Your task to perform on an android device: Search for sushi restaurants on Maps Image 0: 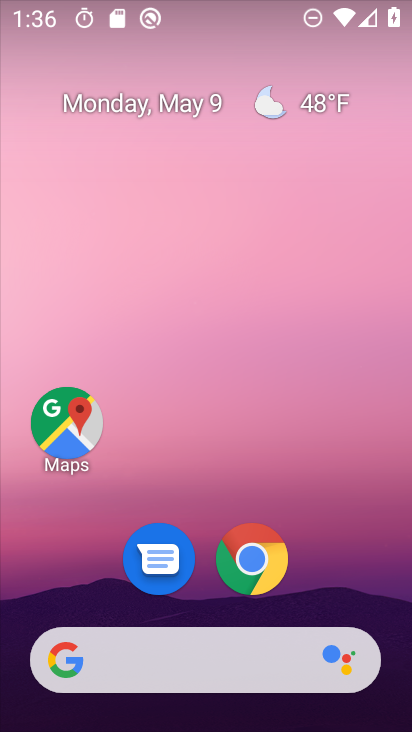
Step 0: drag from (208, 606) to (233, 108)
Your task to perform on an android device: Search for sushi restaurants on Maps Image 1: 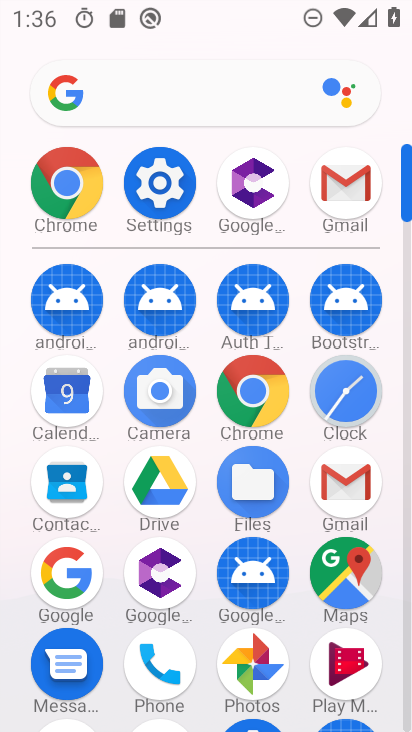
Step 1: click (340, 568)
Your task to perform on an android device: Search for sushi restaurants on Maps Image 2: 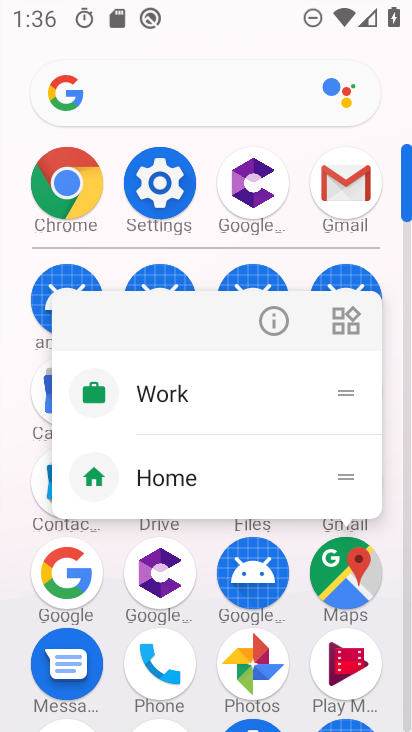
Step 2: click (278, 335)
Your task to perform on an android device: Search for sushi restaurants on Maps Image 3: 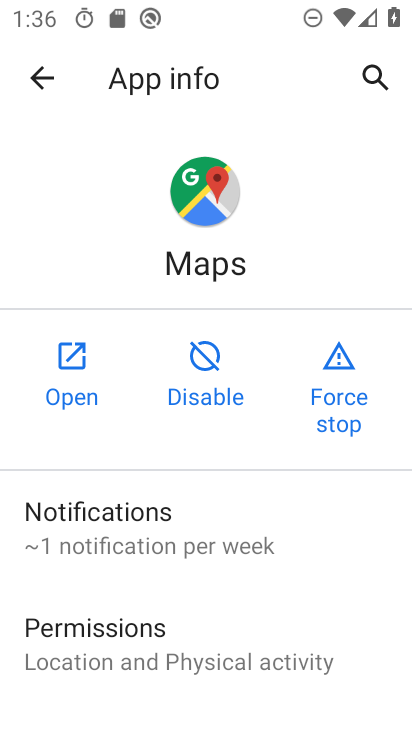
Step 3: click (57, 368)
Your task to perform on an android device: Search for sushi restaurants on Maps Image 4: 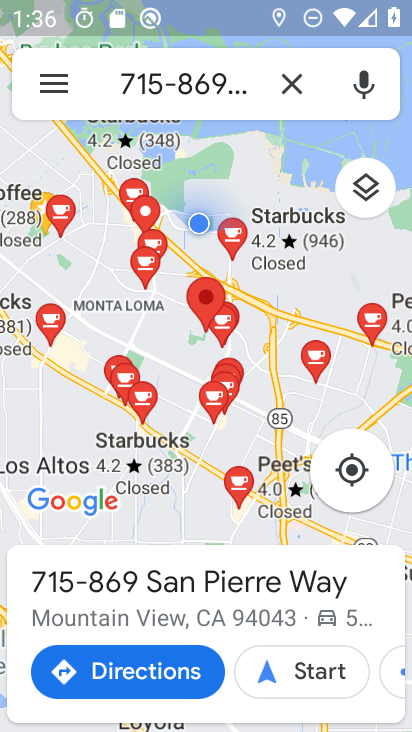
Step 4: drag from (163, 577) to (220, 238)
Your task to perform on an android device: Search for sushi restaurants on Maps Image 5: 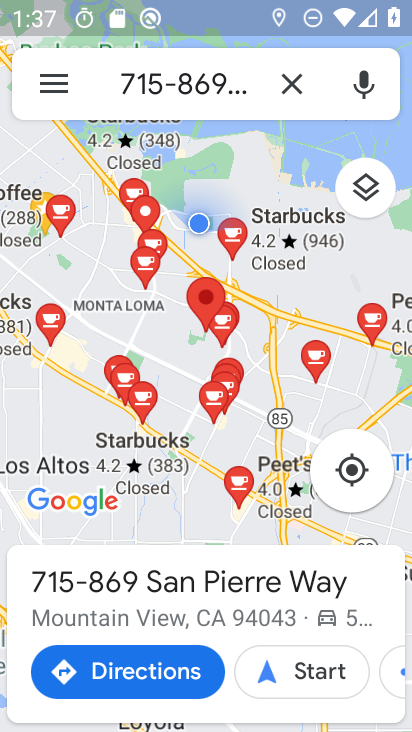
Step 5: drag from (212, 468) to (281, 166)
Your task to perform on an android device: Search for sushi restaurants on Maps Image 6: 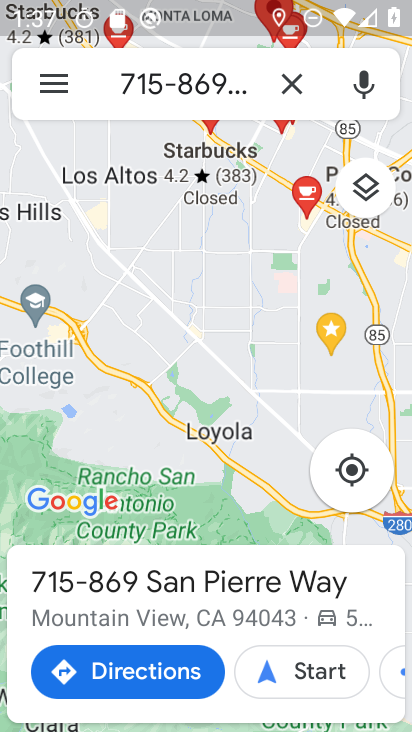
Step 6: drag from (253, 462) to (283, 248)
Your task to perform on an android device: Search for sushi restaurants on Maps Image 7: 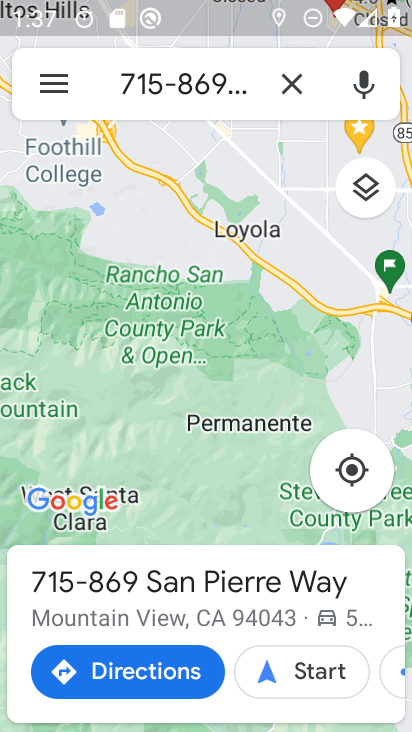
Step 7: click (288, 97)
Your task to perform on an android device: Search for sushi restaurants on Maps Image 8: 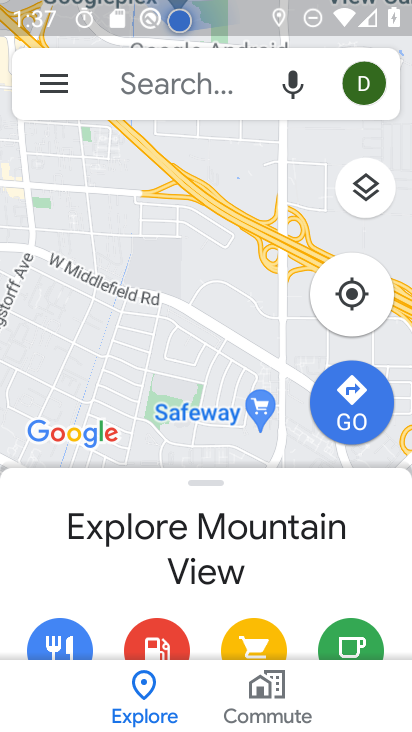
Step 8: click (185, 96)
Your task to perform on an android device: Search for sushi restaurants on Maps Image 9: 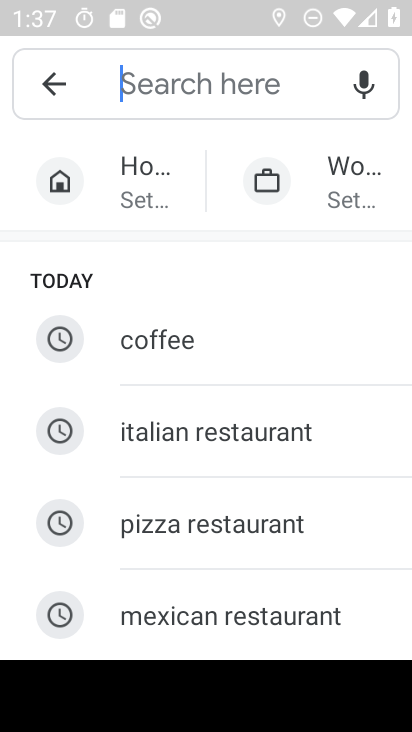
Step 9: type "sushi restaurants"
Your task to perform on an android device: Search for sushi restaurants on Maps Image 10: 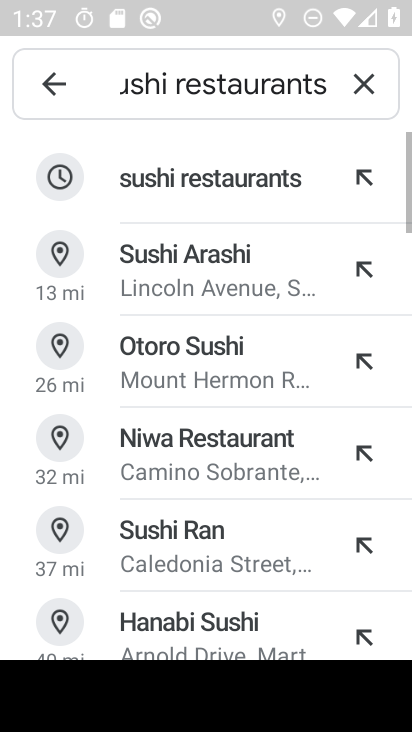
Step 10: click (227, 212)
Your task to perform on an android device: Search for sushi restaurants on Maps Image 11: 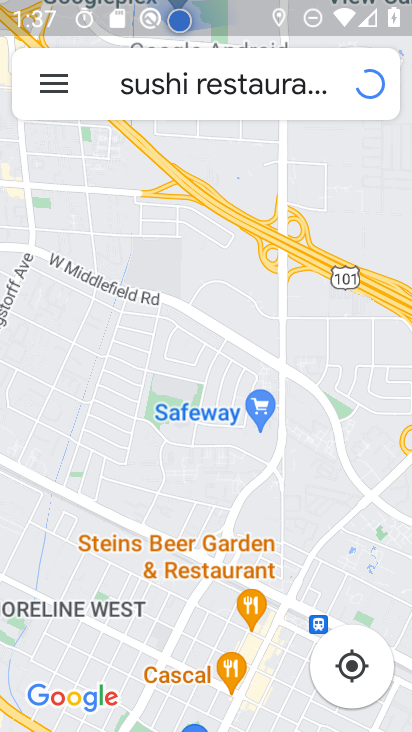
Step 11: task complete